Your task to perform on an android device: Go to ESPN.com Image 0: 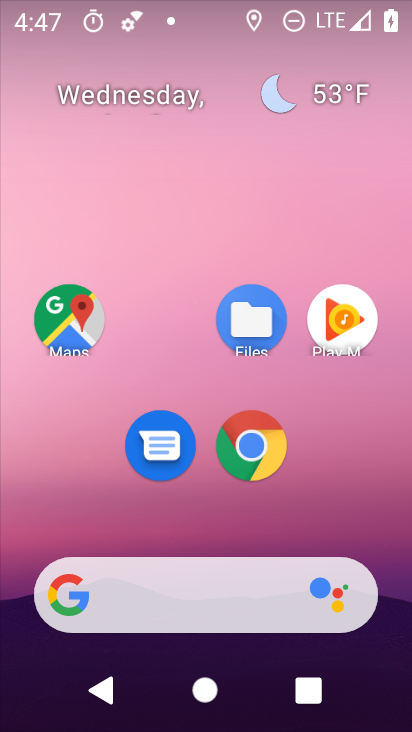
Step 0: click (244, 446)
Your task to perform on an android device: Go to ESPN.com Image 1: 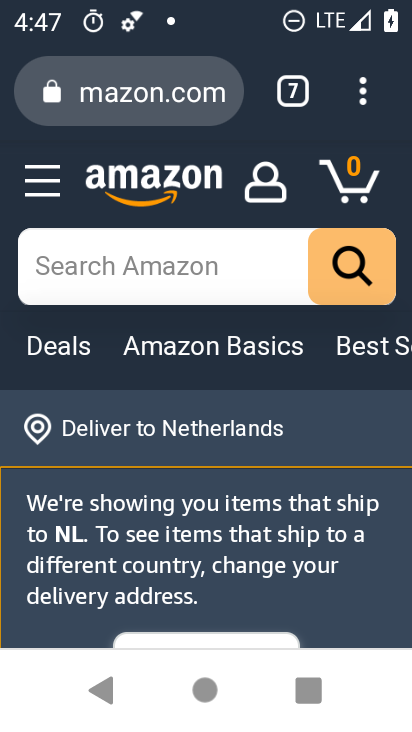
Step 1: click (303, 88)
Your task to perform on an android device: Go to ESPN.com Image 2: 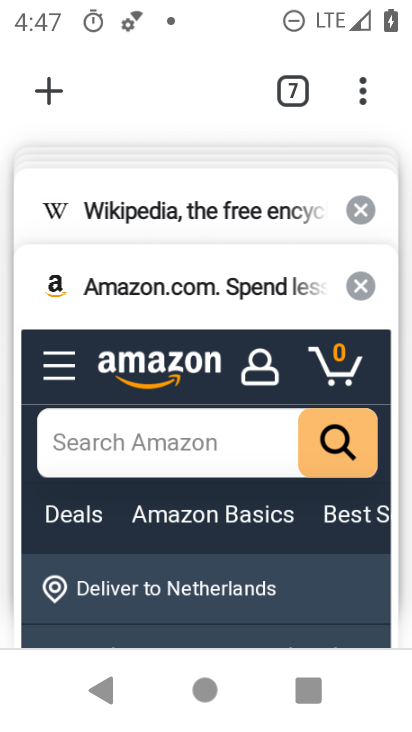
Step 2: drag from (228, 210) to (214, 473)
Your task to perform on an android device: Go to ESPN.com Image 3: 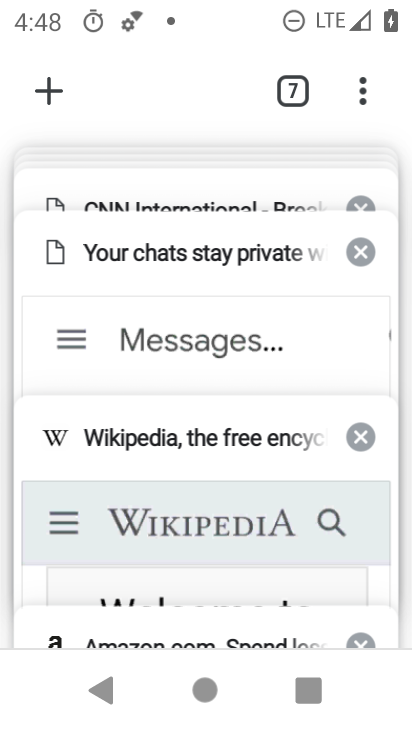
Step 3: drag from (231, 191) to (243, 557)
Your task to perform on an android device: Go to ESPN.com Image 4: 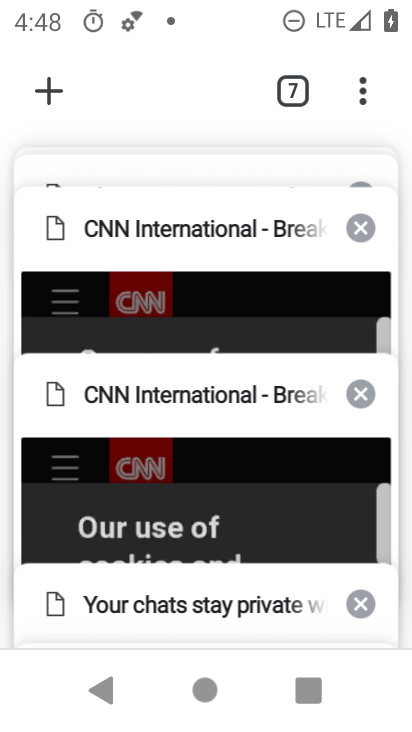
Step 4: drag from (240, 220) to (252, 509)
Your task to perform on an android device: Go to ESPN.com Image 5: 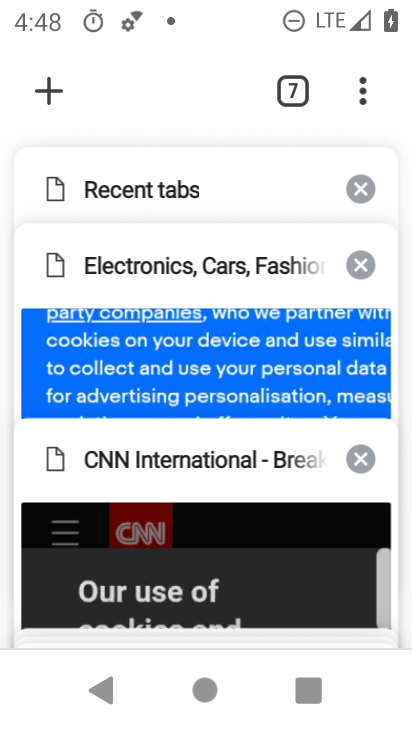
Step 5: drag from (244, 173) to (260, 408)
Your task to perform on an android device: Go to ESPN.com Image 6: 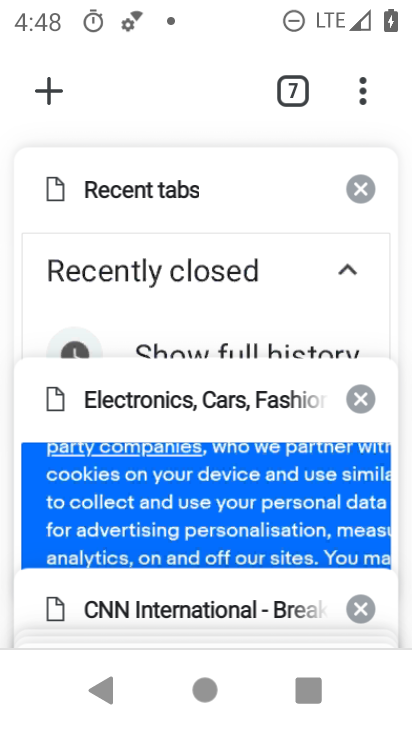
Step 6: click (207, 173)
Your task to perform on an android device: Go to ESPN.com Image 7: 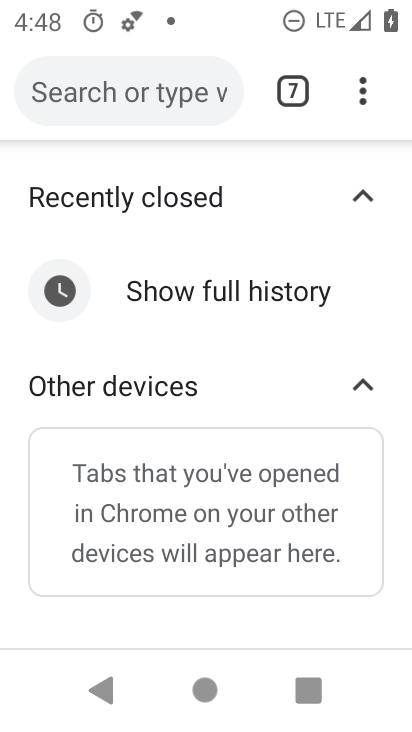
Step 7: click (193, 103)
Your task to perform on an android device: Go to ESPN.com Image 8: 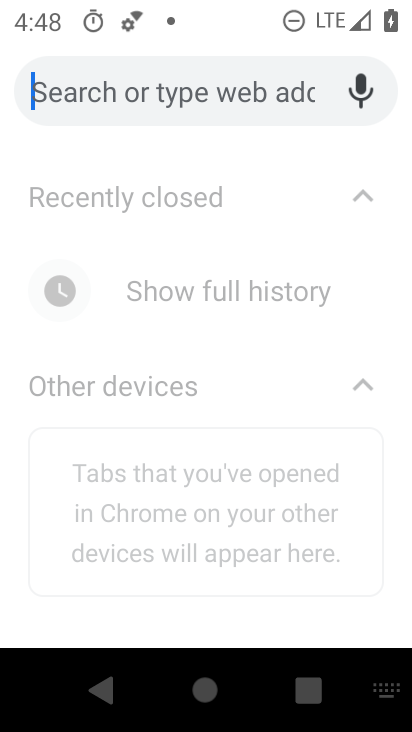
Step 8: type "ESPN.com"
Your task to perform on an android device: Go to ESPN.com Image 9: 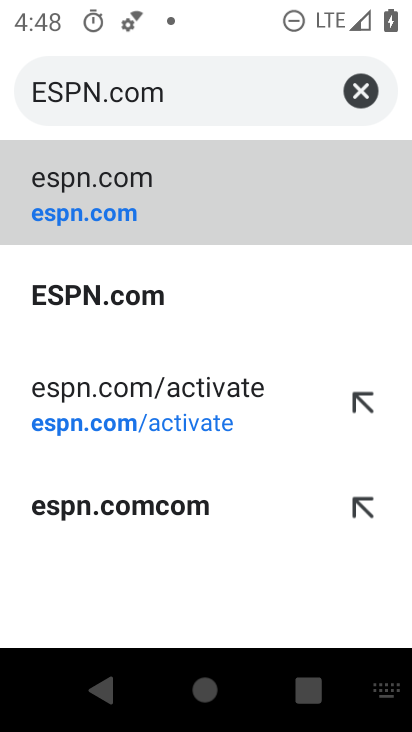
Step 9: click (87, 201)
Your task to perform on an android device: Go to ESPN.com Image 10: 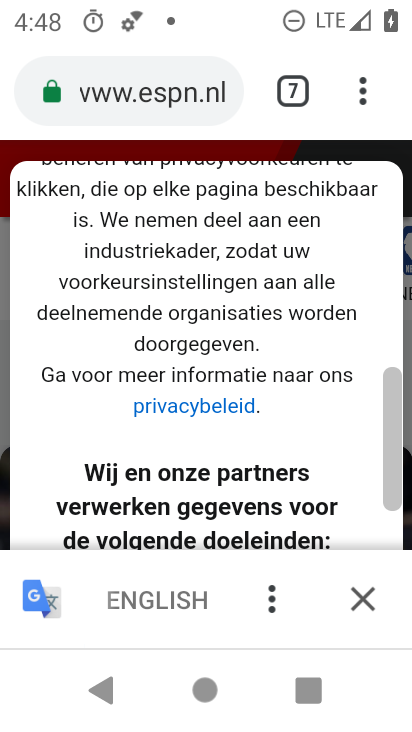
Step 10: task complete